Your task to perform on an android device: turn on translation in the chrome app Image 0: 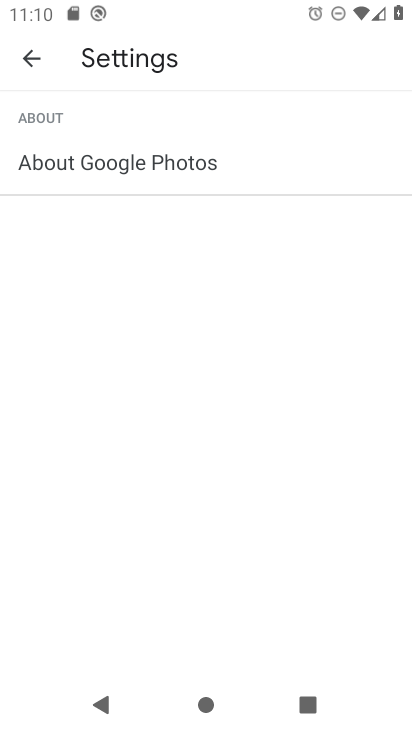
Step 0: press back button
Your task to perform on an android device: turn on translation in the chrome app Image 1: 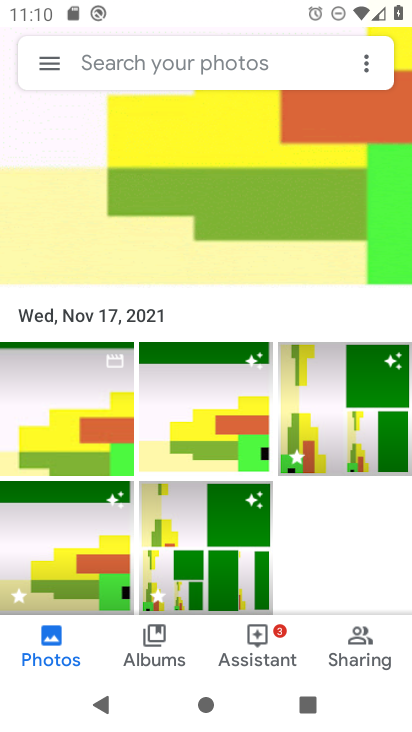
Step 1: press home button
Your task to perform on an android device: turn on translation in the chrome app Image 2: 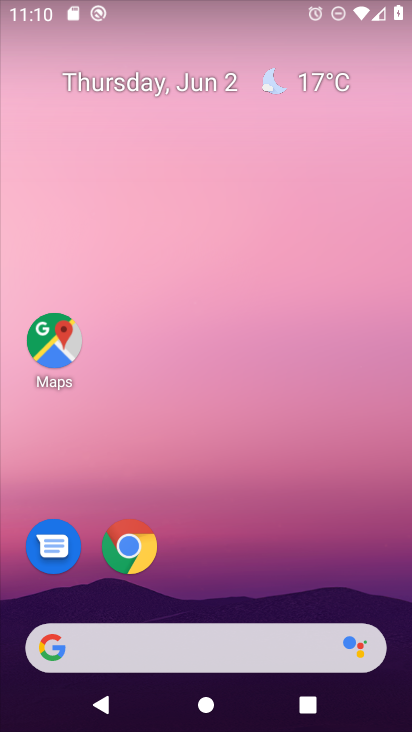
Step 2: drag from (242, 437) to (239, 43)
Your task to perform on an android device: turn on translation in the chrome app Image 3: 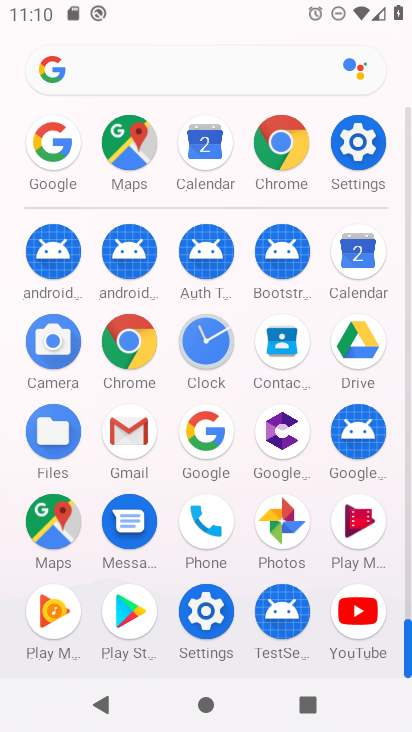
Step 3: click (130, 337)
Your task to perform on an android device: turn on translation in the chrome app Image 4: 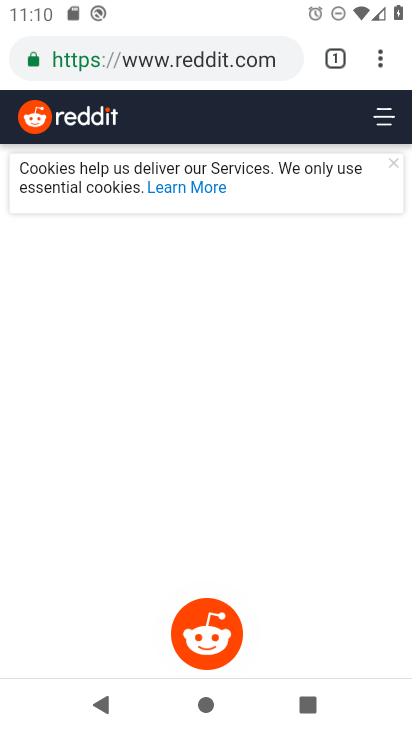
Step 4: drag from (378, 57) to (236, 565)
Your task to perform on an android device: turn on translation in the chrome app Image 5: 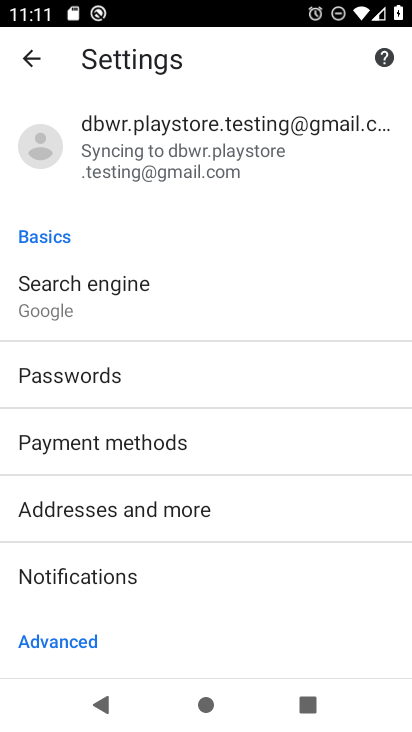
Step 5: drag from (235, 424) to (236, 197)
Your task to perform on an android device: turn on translation in the chrome app Image 6: 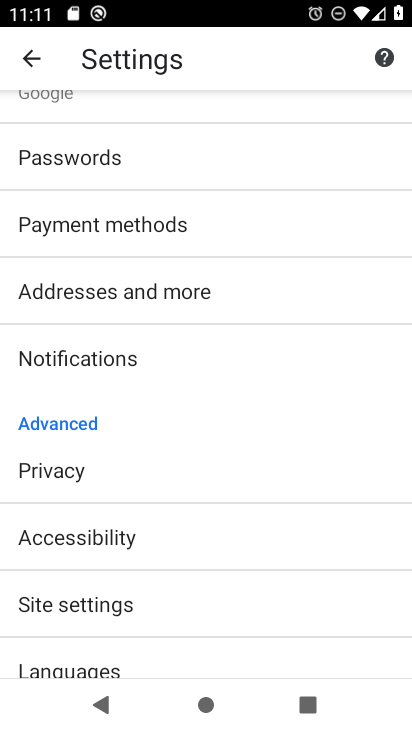
Step 6: drag from (208, 219) to (208, 158)
Your task to perform on an android device: turn on translation in the chrome app Image 7: 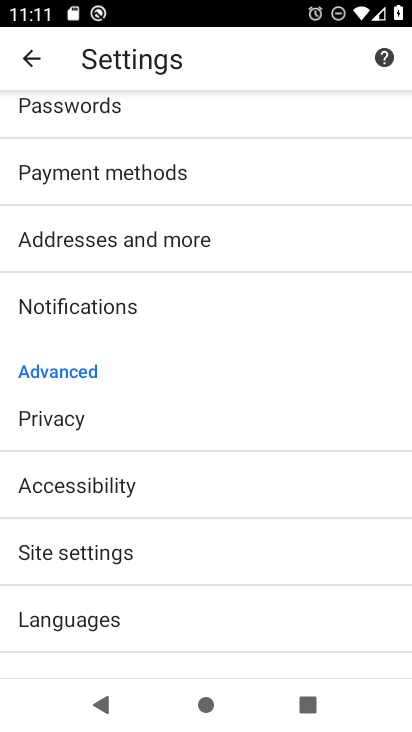
Step 7: click (161, 606)
Your task to perform on an android device: turn on translation in the chrome app Image 8: 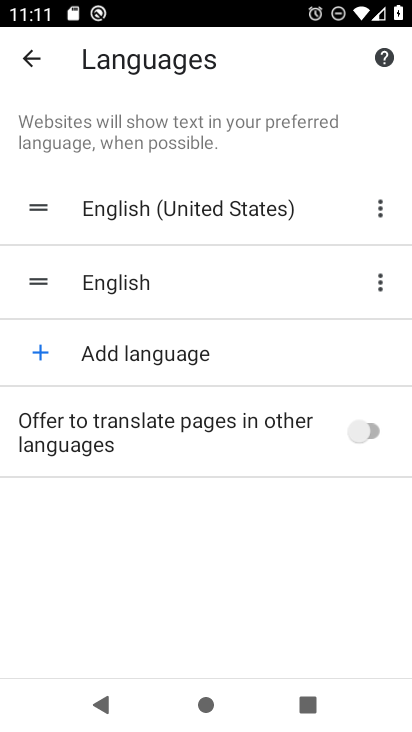
Step 8: click (366, 423)
Your task to perform on an android device: turn on translation in the chrome app Image 9: 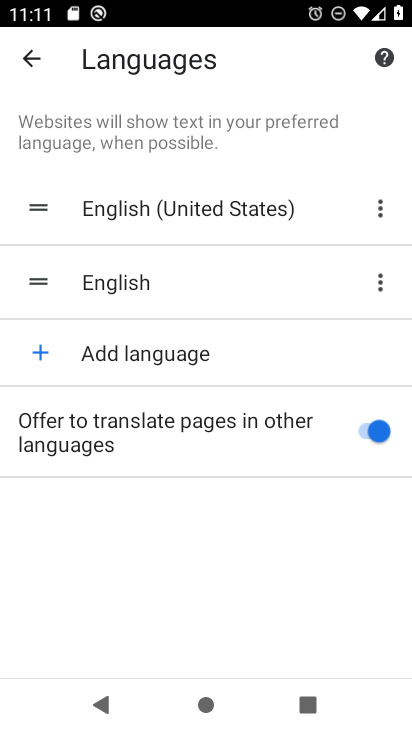
Step 9: task complete